Your task to perform on an android device: toggle notifications settings in the gmail app Image 0: 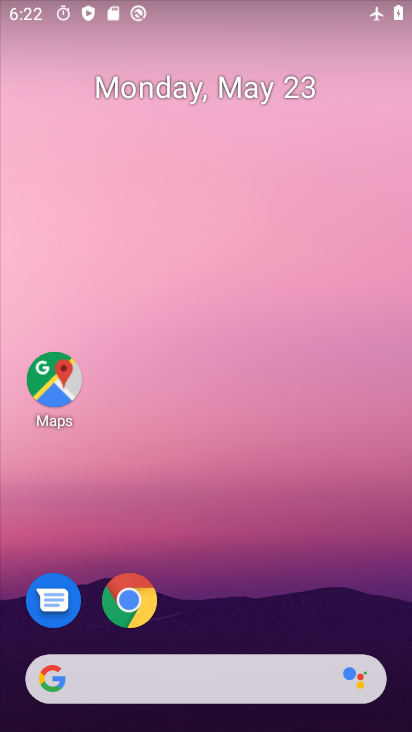
Step 0: drag from (225, 610) to (246, 171)
Your task to perform on an android device: toggle notifications settings in the gmail app Image 1: 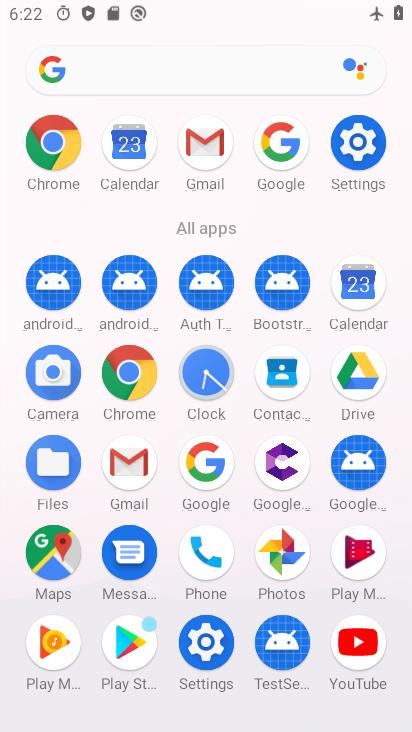
Step 1: click (100, 470)
Your task to perform on an android device: toggle notifications settings in the gmail app Image 2: 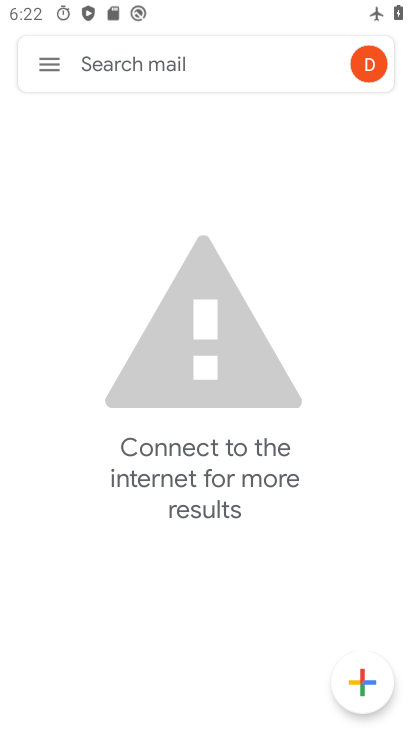
Step 2: click (40, 71)
Your task to perform on an android device: toggle notifications settings in the gmail app Image 3: 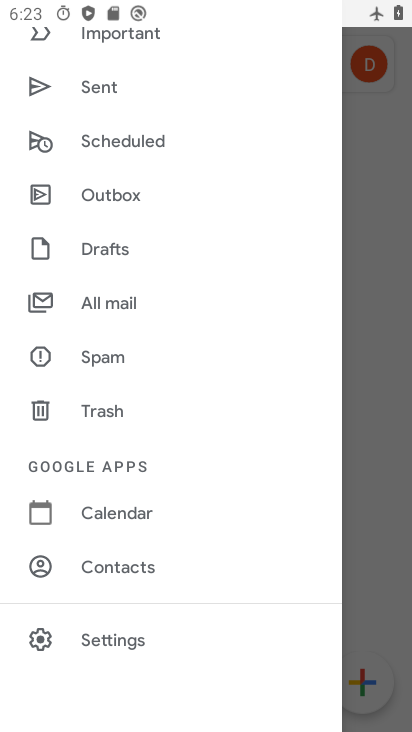
Step 3: click (115, 637)
Your task to perform on an android device: toggle notifications settings in the gmail app Image 4: 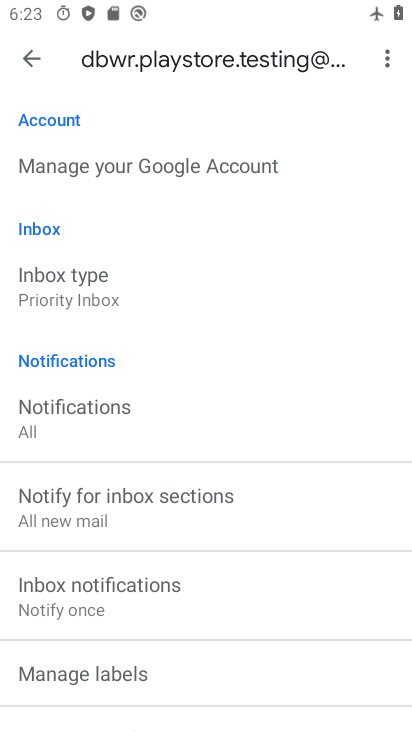
Step 4: drag from (138, 613) to (158, 176)
Your task to perform on an android device: toggle notifications settings in the gmail app Image 5: 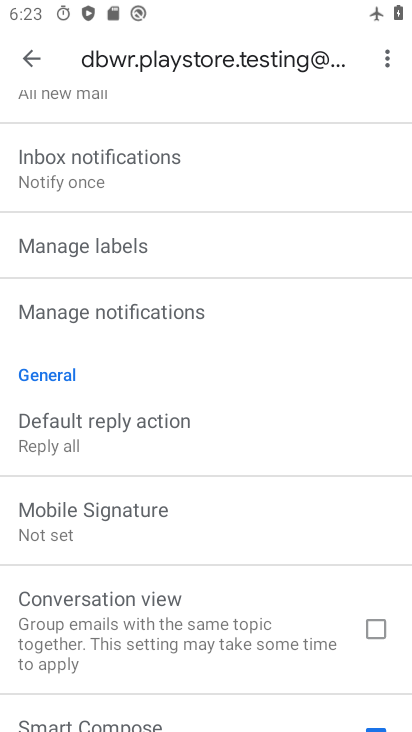
Step 5: click (146, 319)
Your task to perform on an android device: toggle notifications settings in the gmail app Image 6: 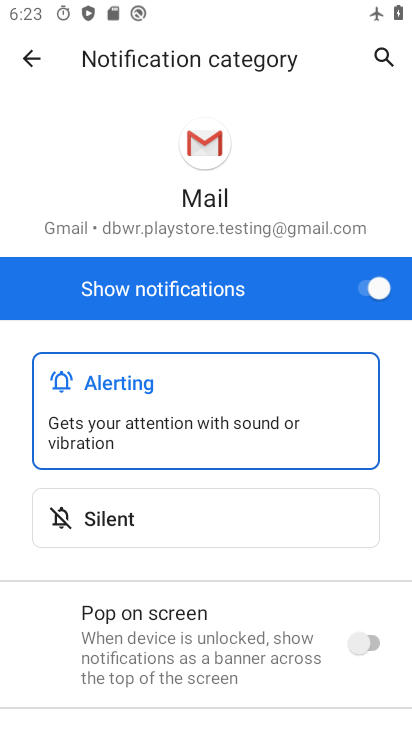
Step 6: click (376, 290)
Your task to perform on an android device: toggle notifications settings in the gmail app Image 7: 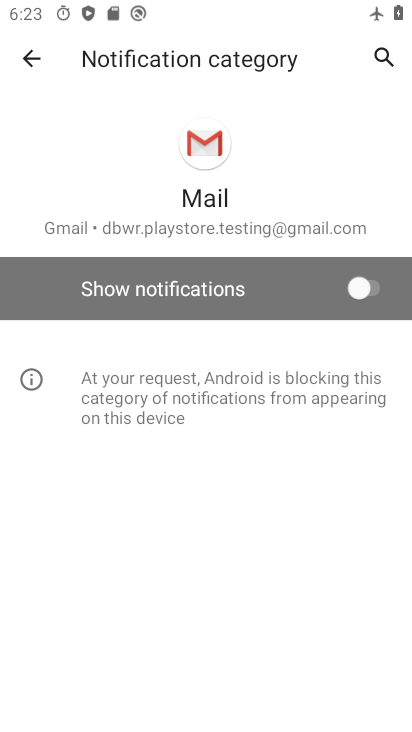
Step 7: task complete